Your task to perform on an android device: turn on javascript in the chrome app Image 0: 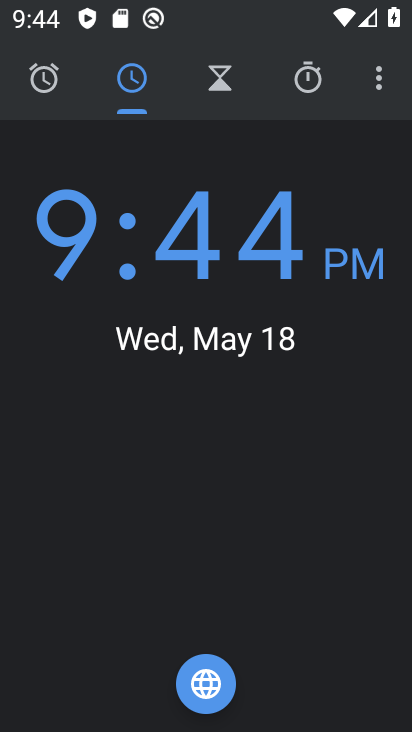
Step 0: press home button
Your task to perform on an android device: turn on javascript in the chrome app Image 1: 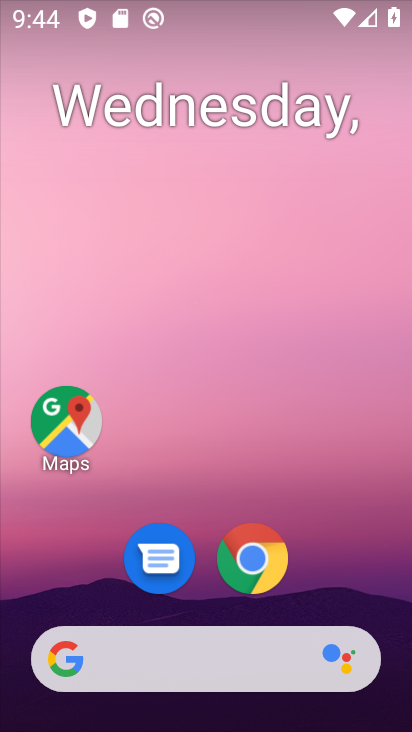
Step 1: click (234, 556)
Your task to perform on an android device: turn on javascript in the chrome app Image 2: 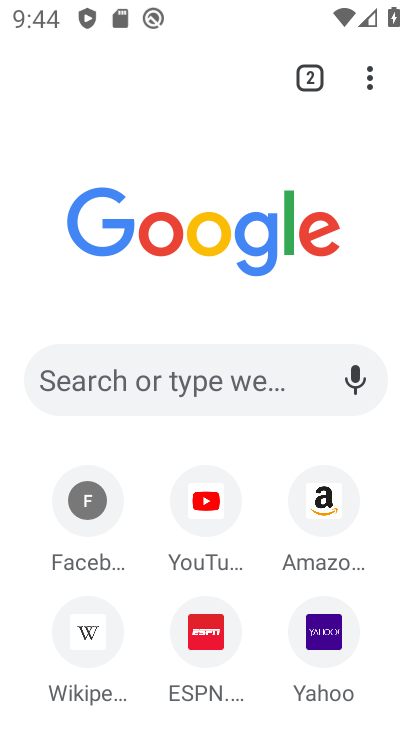
Step 2: click (372, 79)
Your task to perform on an android device: turn on javascript in the chrome app Image 3: 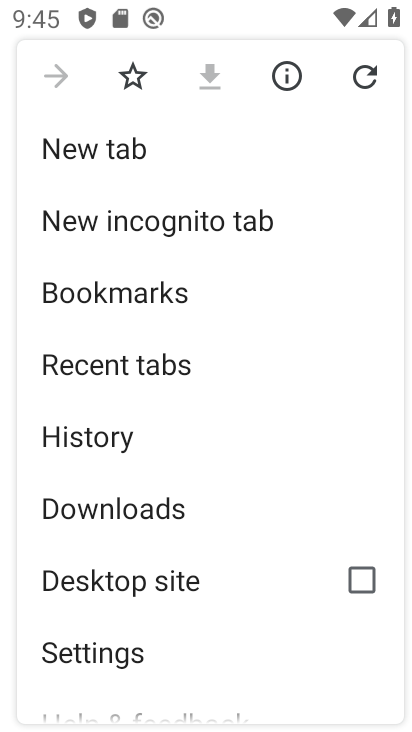
Step 3: click (85, 656)
Your task to perform on an android device: turn on javascript in the chrome app Image 4: 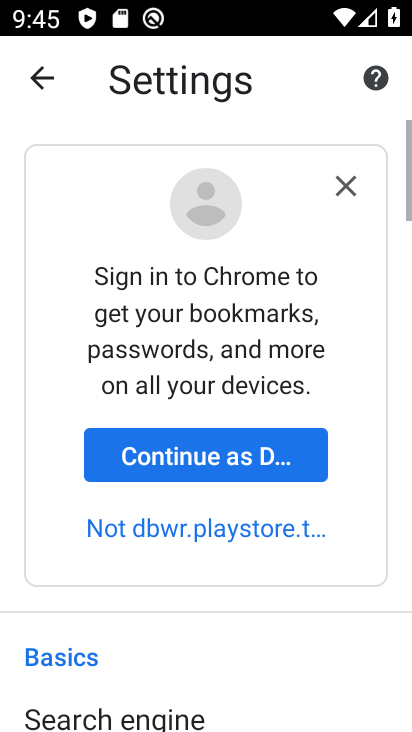
Step 4: drag from (52, 692) to (239, 104)
Your task to perform on an android device: turn on javascript in the chrome app Image 5: 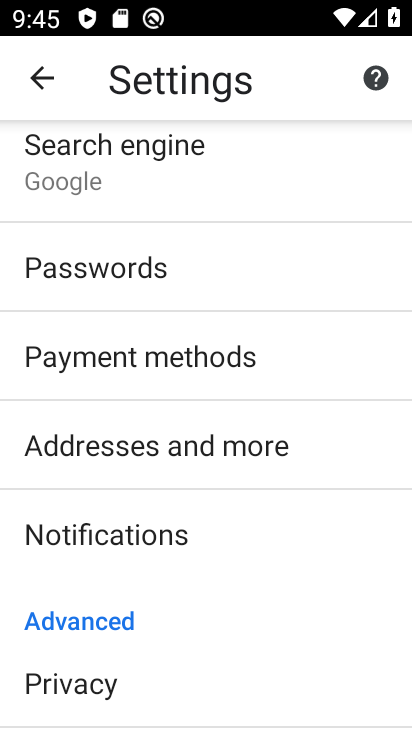
Step 5: drag from (4, 673) to (106, 390)
Your task to perform on an android device: turn on javascript in the chrome app Image 6: 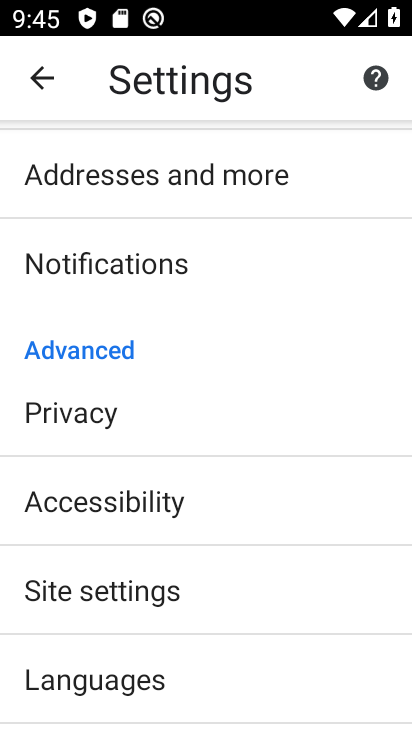
Step 6: click (86, 593)
Your task to perform on an android device: turn on javascript in the chrome app Image 7: 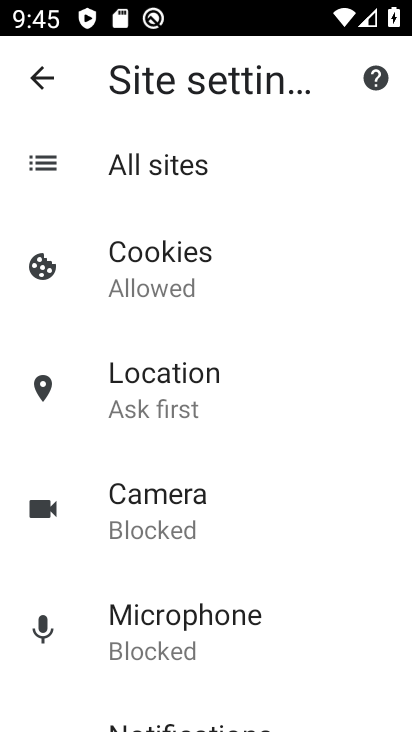
Step 7: drag from (117, 583) to (285, 221)
Your task to perform on an android device: turn on javascript in the chrome app Image 8: 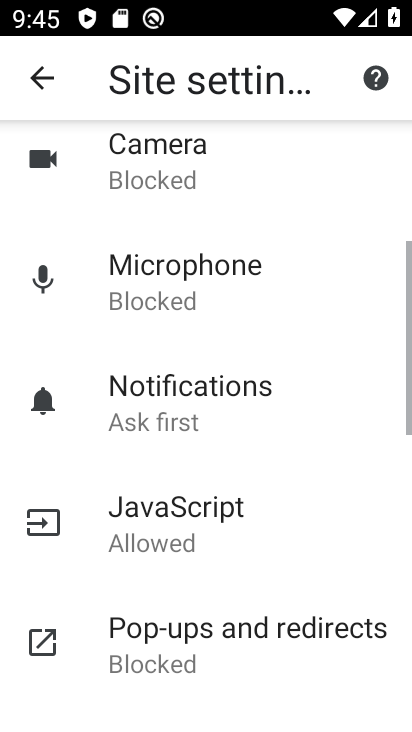
Step 8: click (214, 498)
Your task to perform on an android device: turn on javascript in the chrome app Image 9: 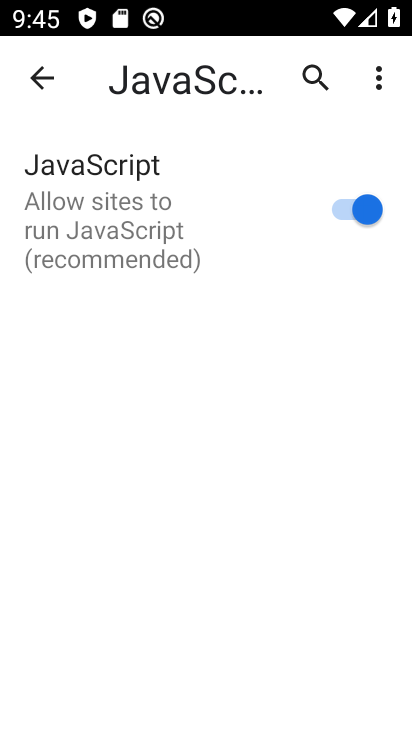
Step 9: task complete